Your task to perform on an android device: Go to accessibility settings Image 0: 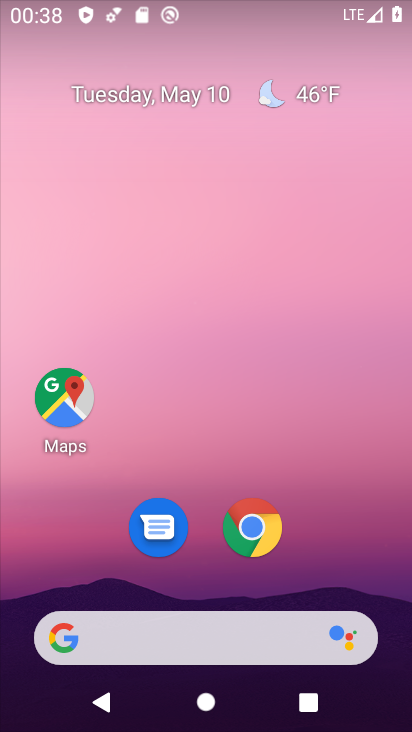
Step 0: drag from (319, 478) to (90, 126)
Your task to perform on an android device: Go to accessibility settings Image 1: 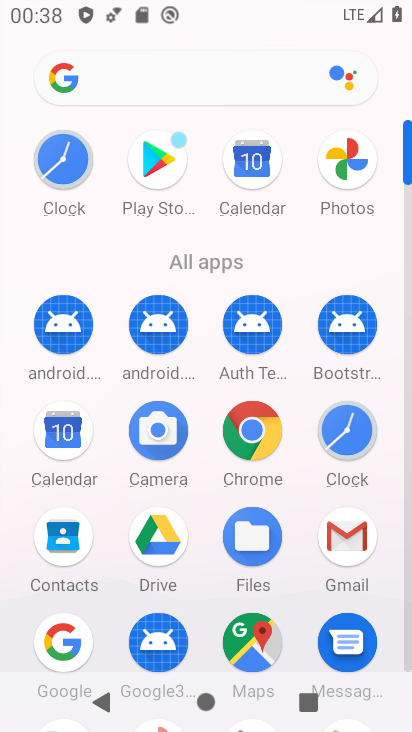
Step 1: drag from (202, 651) to (225, 208)
Your task to perform on an android device: Go to accessibility settings Image 2: 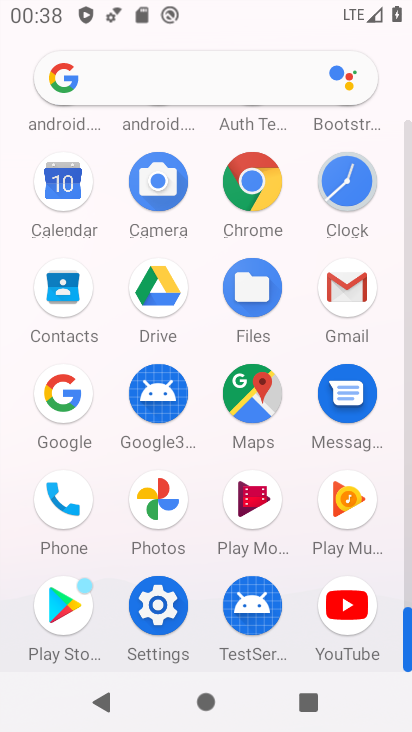
Step 2: click (158, 607)
Your task to perform on an android device: Go to accessibility settings Image 3: 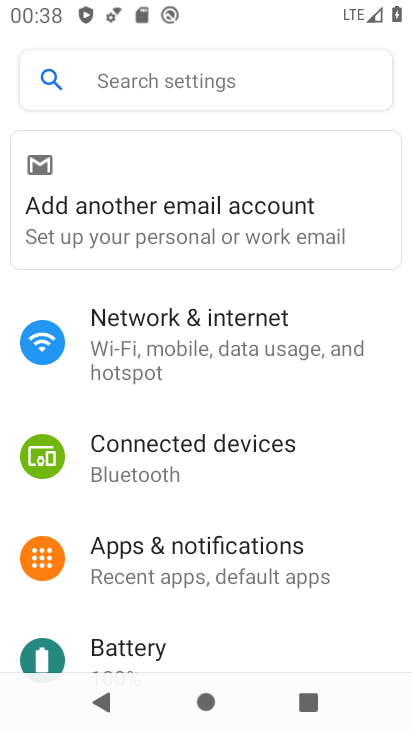
Step 3: drag from (163, 597) to (199, 171)
Your task to perform on an android device: Go to accessibility settings Image 4: 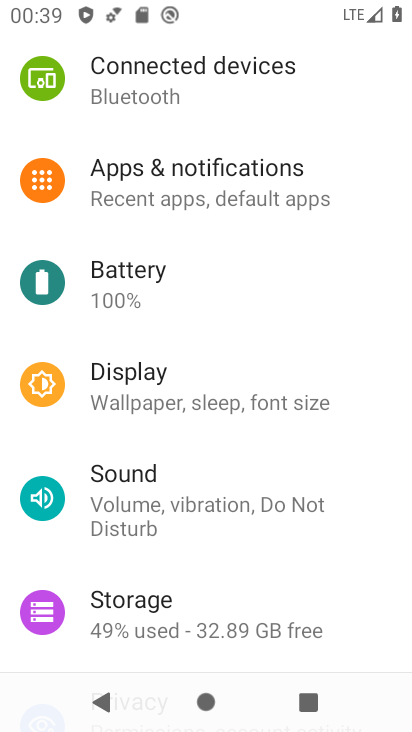
Step 4: drag from (320, 618) to (347, 149)
Your task to perform on an android device: Go to accessibility settings Image 5: 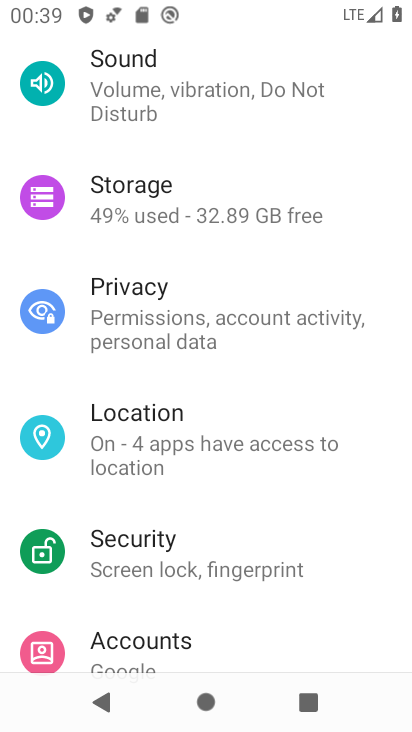
Step 5: drag from (246, 440) to (256, 261)
Your task to perform on an android device: Go to accessibility settings Image 6: 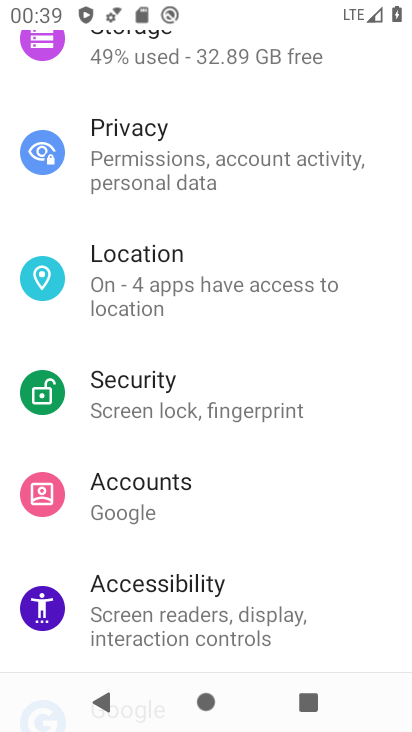
Step 6: click (174, 617)
Your task to perform on an android device: Go to accessibility settings Image 7: 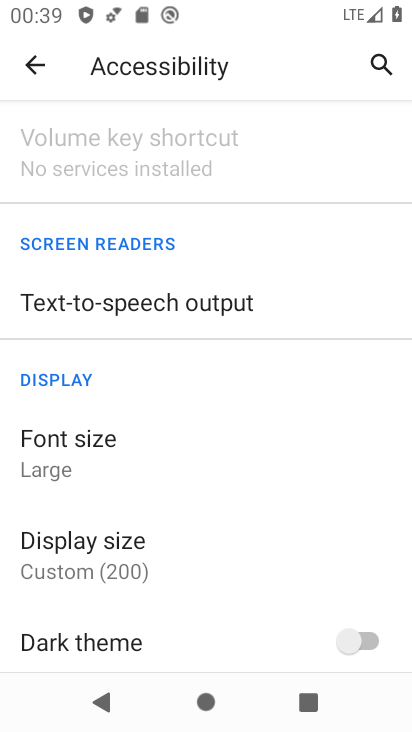
Step 7: task complete